Your task to perform on an android device: change notifications settings Image 0: 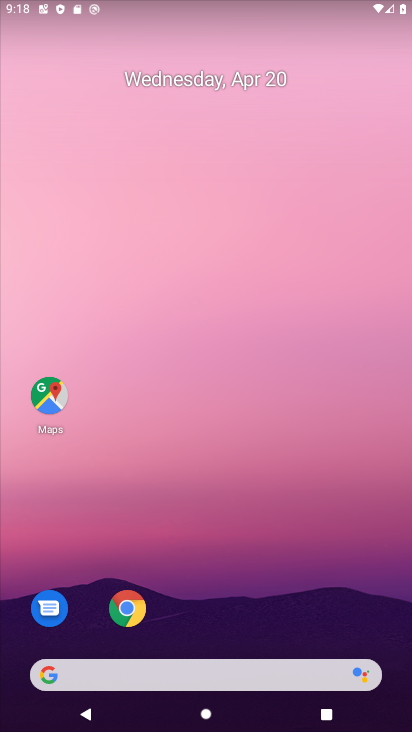
Step 0: drag from (194, 596) to (364, 3)
Your task to perform on an android device: change notifications settings Image 1: 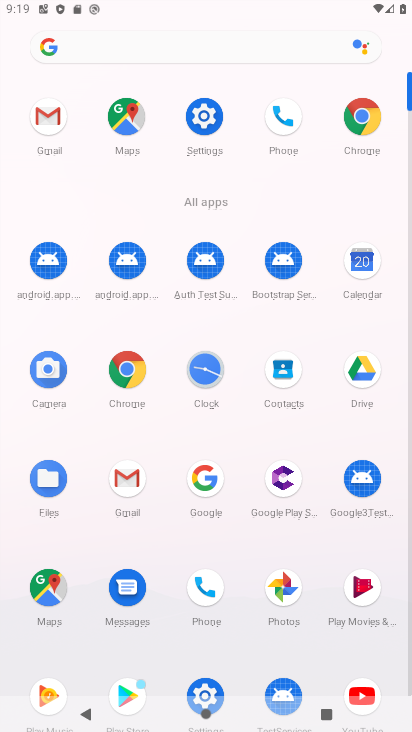
Step 1: click (208, 121)
Your task to perform on an android device: change notifications settings Image 2: 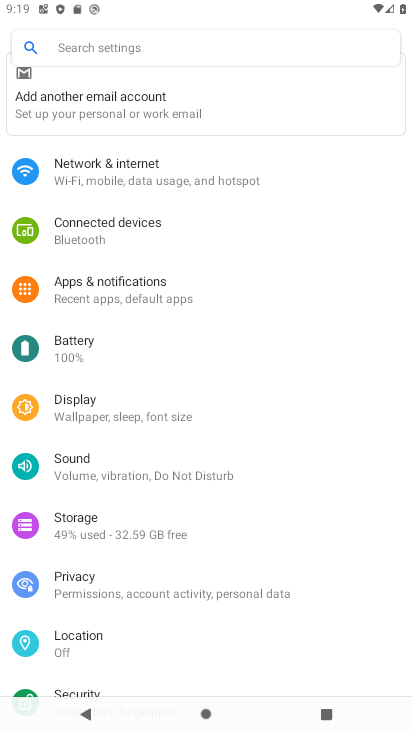
Step 2: click (149, 293)
Your task to perform on an android device: change notifications settings Image 3: 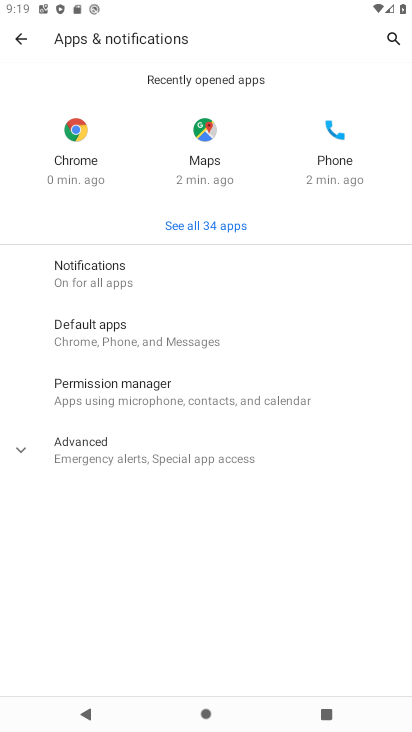
Step 3: click (120, 275)
Your task to perform on an android device: change notifications settings Image 4: 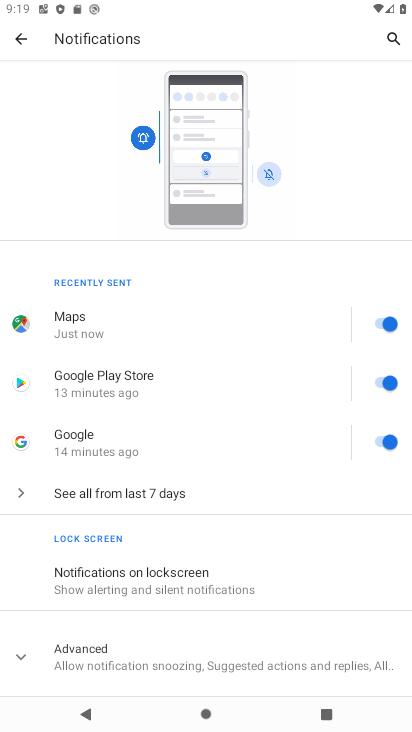
Step 4: click (385, 318)
Your task to perform on an android device: change notifications settings Image 5: 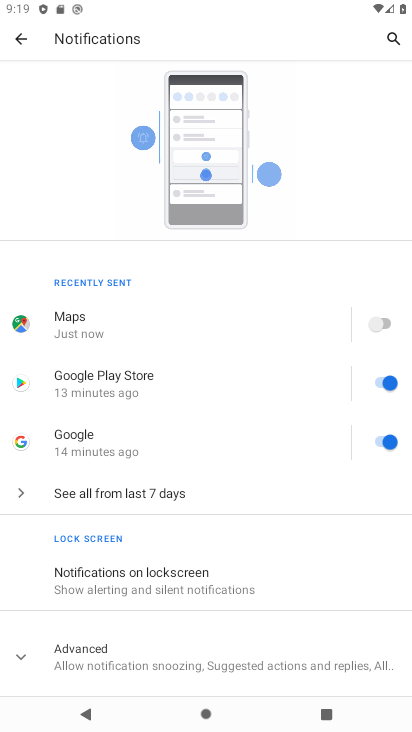
Step 5: click (380, 379)
Your task to perform on an android device: change notifications settings Image 6: 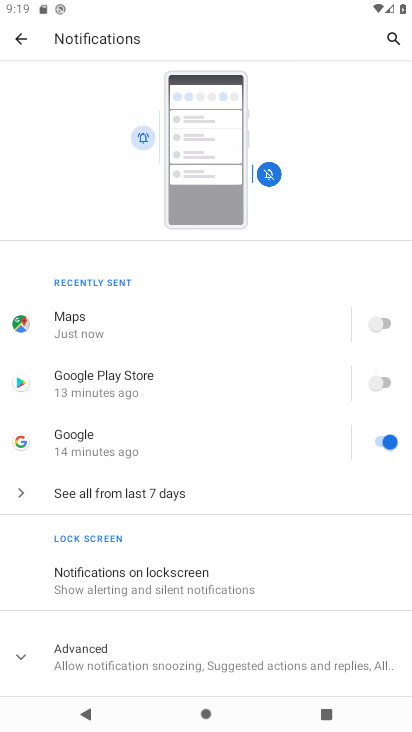
Step 6: click (382, 443)
Your task to perform on an android device: change notifications settings Image 7: 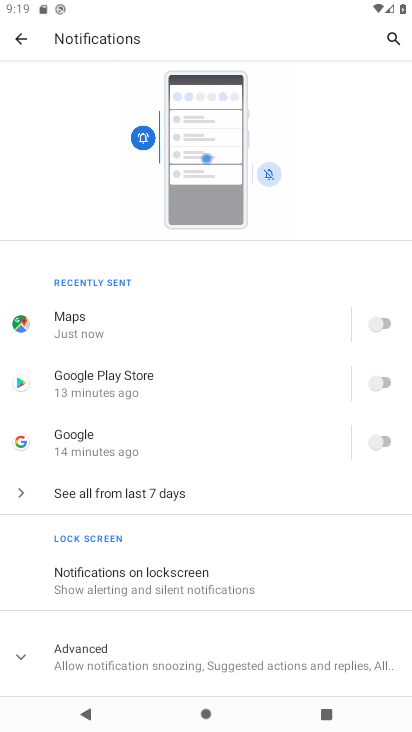
Step 7: task complete